Your task to perform on an android device: open a new tab in the chrome app Image 0: 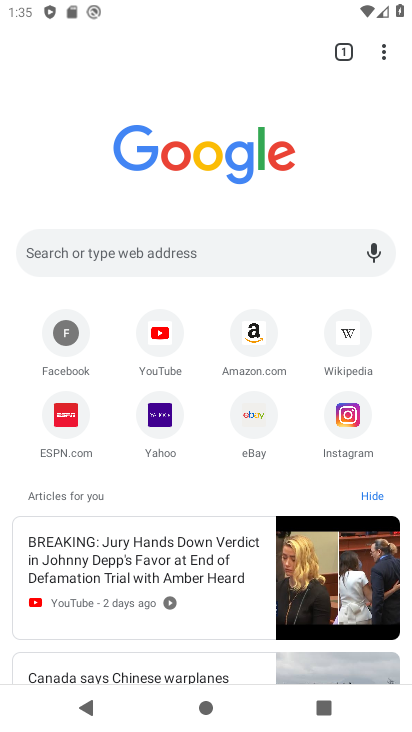
Step 0: drag from (381, 43) to (202, 99)
Your task to perform on an android device: open a new tab in the chrome app Image 1: 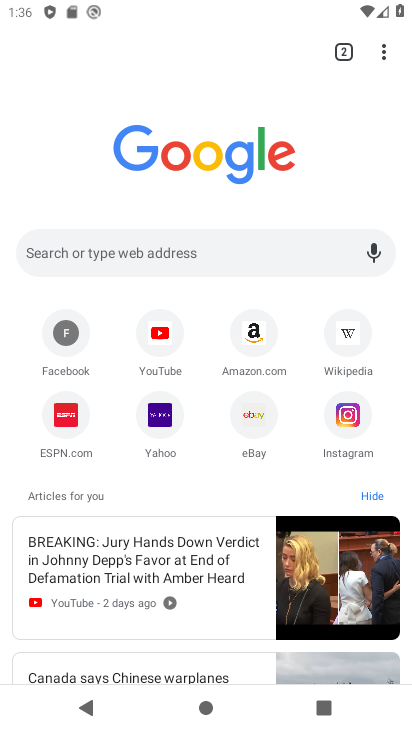
Step 1: task complete